Your task to perform on an android device: Go to Google maps Image 0: 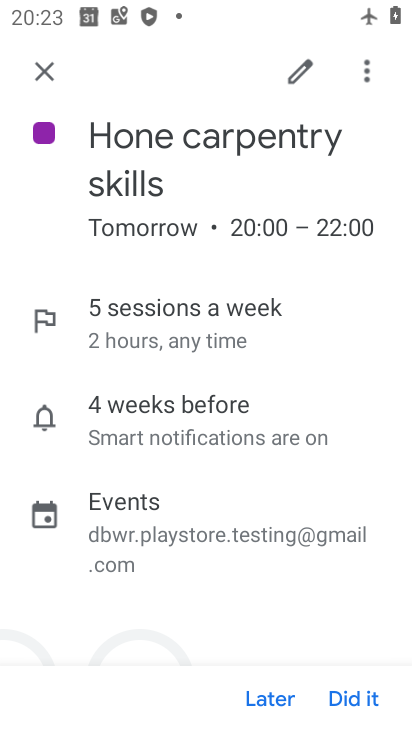
Step 0: press home button
Your task to perform on an android device: Go to Google maps Image 1: 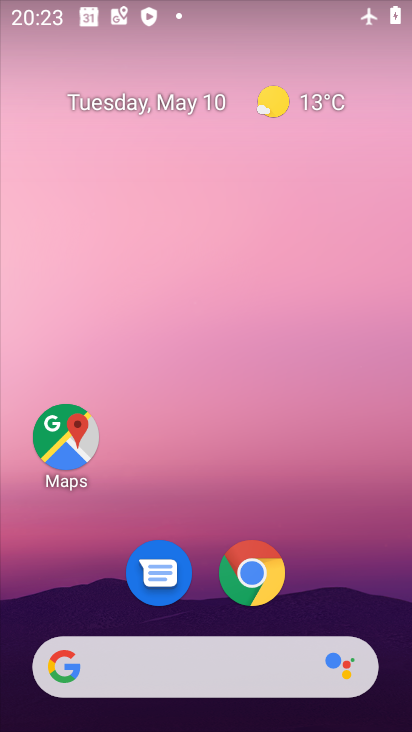
Step 1: click (62, 442)
Your task to perform on an android device: Go to Google maps Image 2: 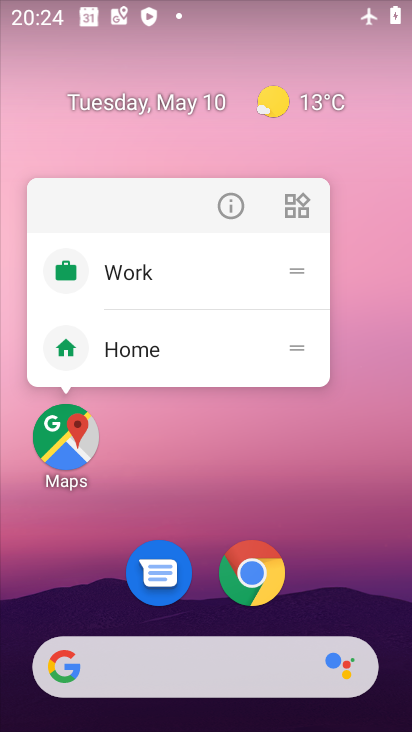
Step 2: click (62, 442)
Your task to perform on an android device: Go to Google maps Image 3: 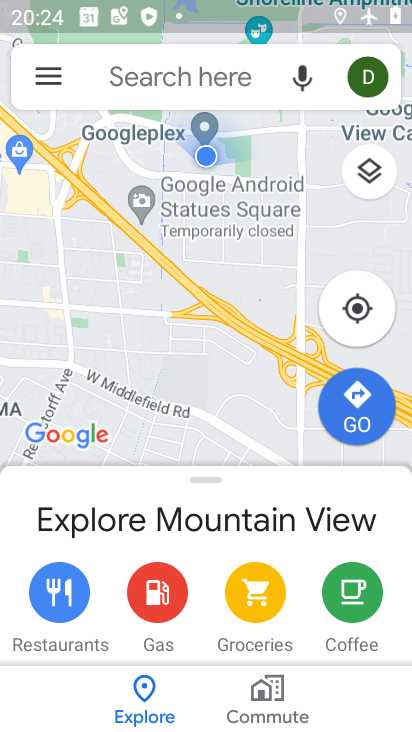
Step 3: task complete